Your task to perform on an android device: Open the map Image 0: 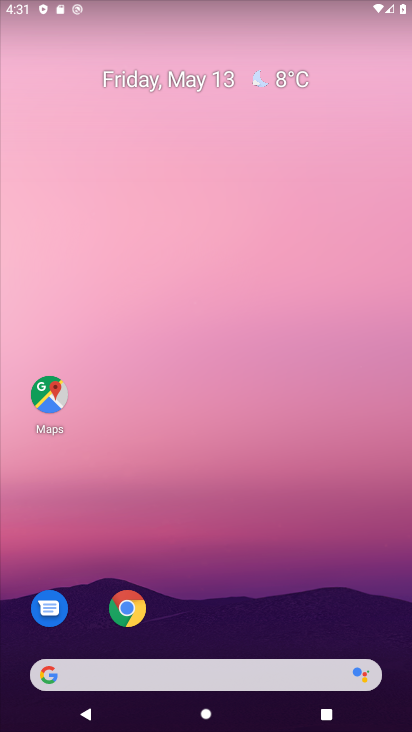
Step 0: click (51, 395)
Your task to perform on an android device: Open the map Image 1: 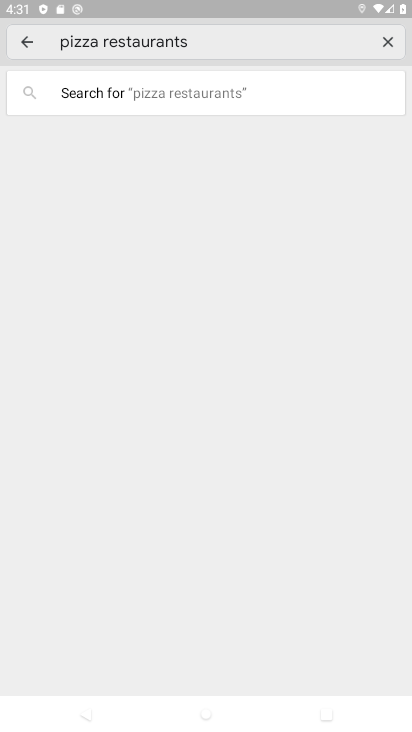
Step 1: click (23, 49)
Your task to perform on an android device: Open the map Image 2: 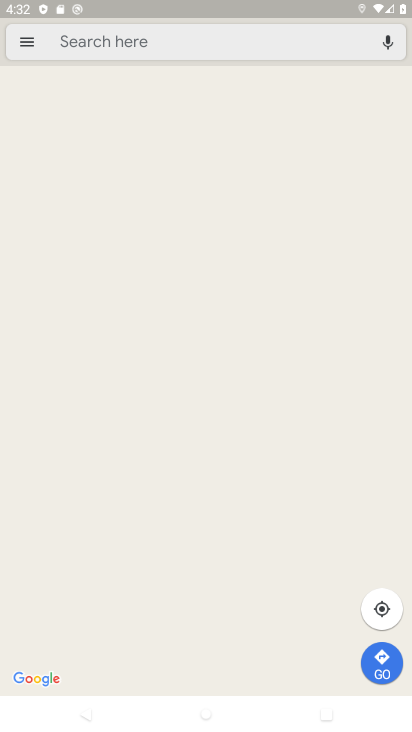
Step 2: task complete